Your task to perform on an android device: change notification settings in the gmail app Image 0: 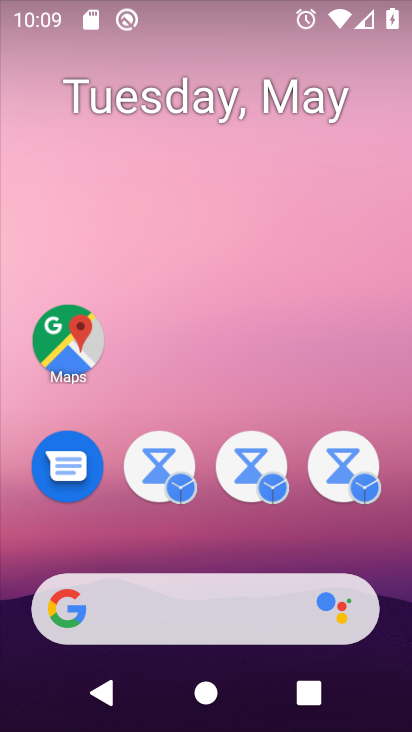
Step 0: drag from (346, 708) to (284, 389)
Your task to perform on an android device: change notification settings in the gmail app Image 1: 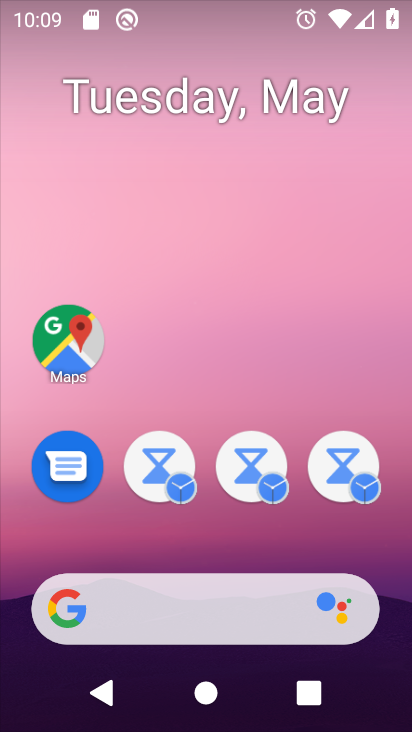
Step 1: drag from (362, 641) to (229, 106)
Your task to perform on an android device: change notification settings in the gmail app Image 2: 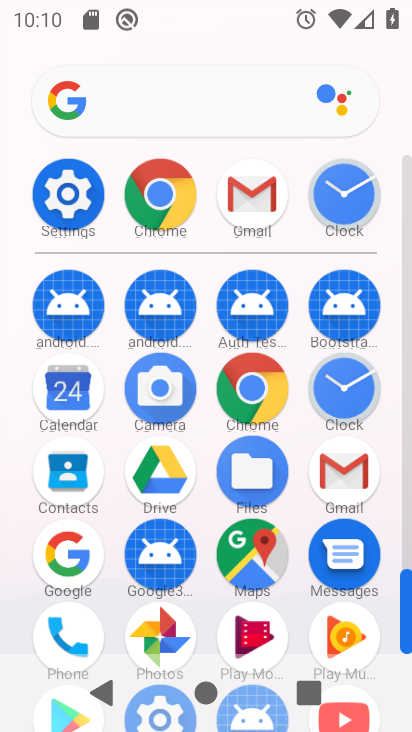
Step 2: click (336, 465)
Your task to perform on an android device: change notification settings in the gmail app Image 3: 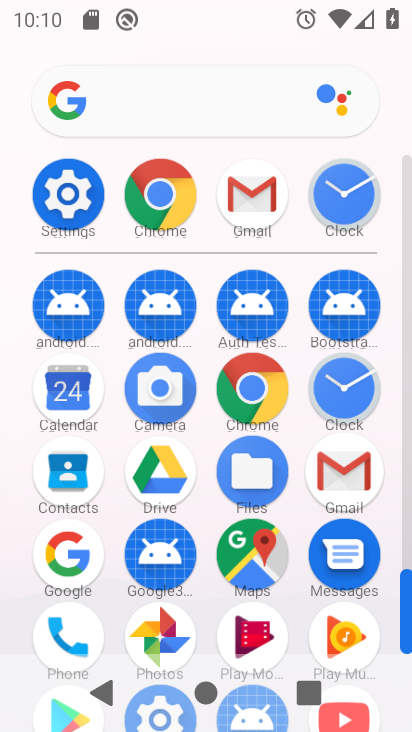
Step 3: click (335, 466)
Your task to perform on an android device: change notification settings in the gmail app Image 4: 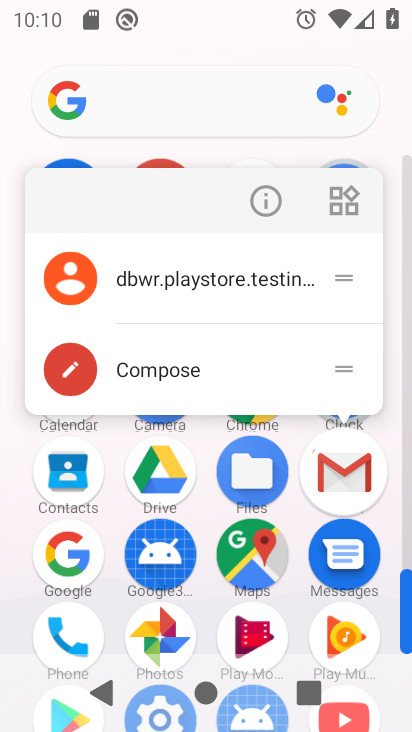
Step 4: click (335, 466)
Your task to perform on an android device: change notification settings in the gmail app Image 5: 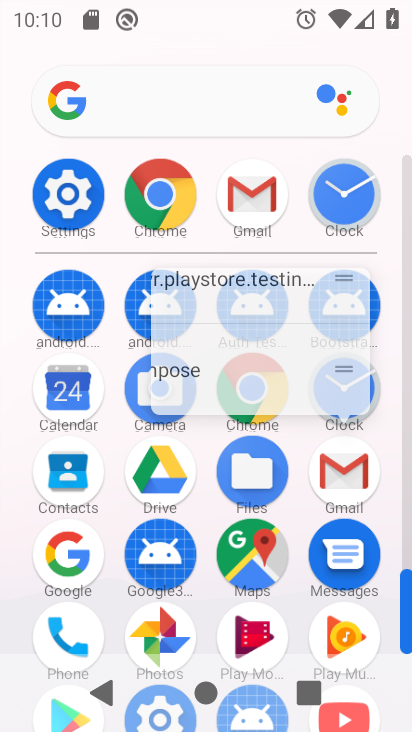
Step 5: click (335, 466)
Your task to perform on an android device: change notification settings in the gmail app Image 6: 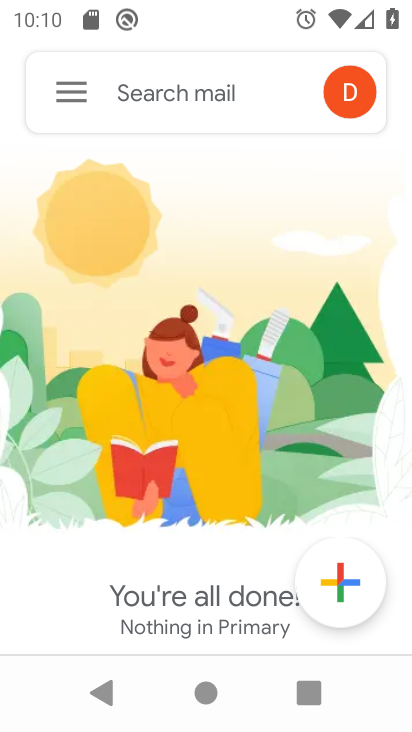
Step 6: press back button
Your task to perform on an android device: change notification settings in the gmail app Image 7: 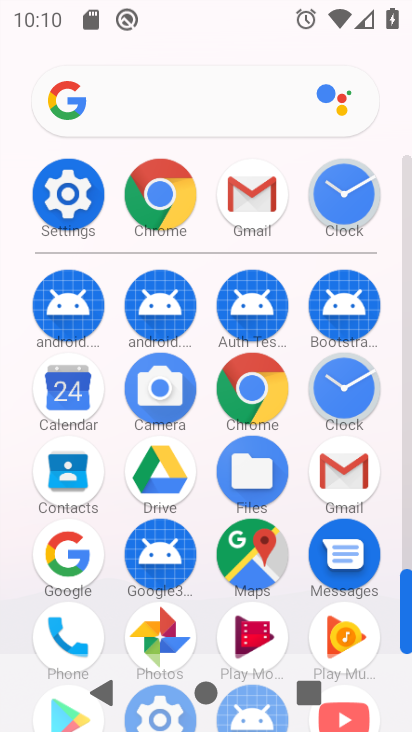
Step 7: click (342, 461)
Your task to perform on an android device: change notification settings in the gmail app Image 8: 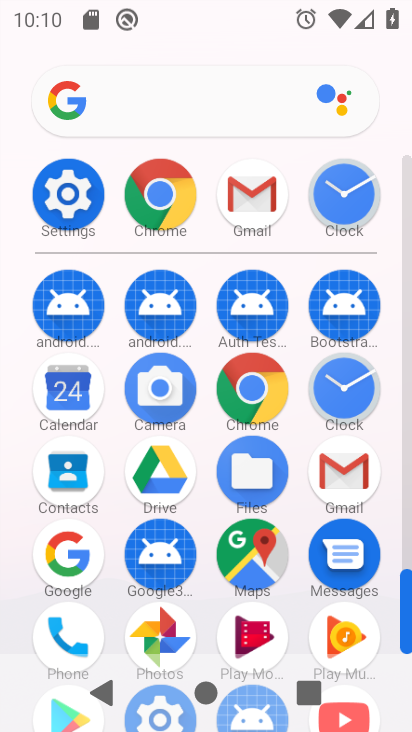
Step 8: click (344, 461)
Your task to perform on an android device: change notification settings in the gmail app Image 9: 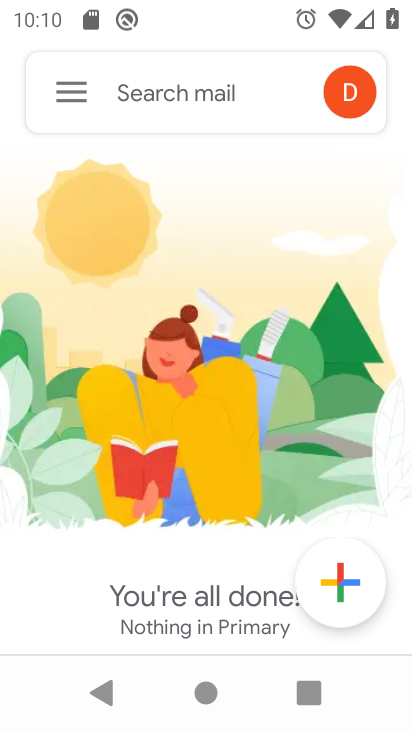
Step 9: drag from (59, 102) to (99, 404)
Your task to perform on an android device: change notification settings in the gmail app Image 10: 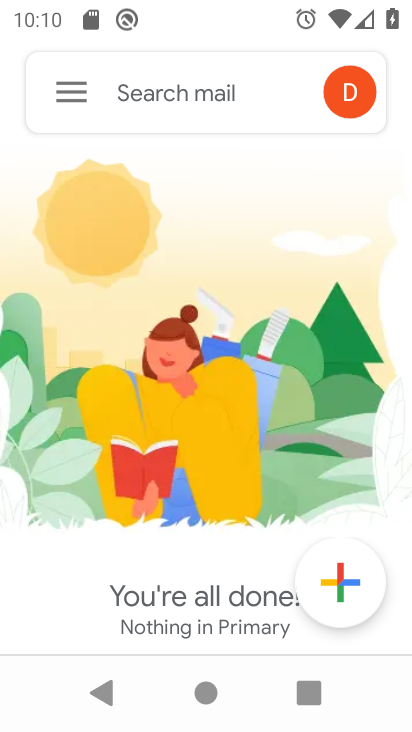
Step 10: drag from (60, 89) to (78, 216)
Your task to perform on an android device: change notification settings in the gmail app Image 11: 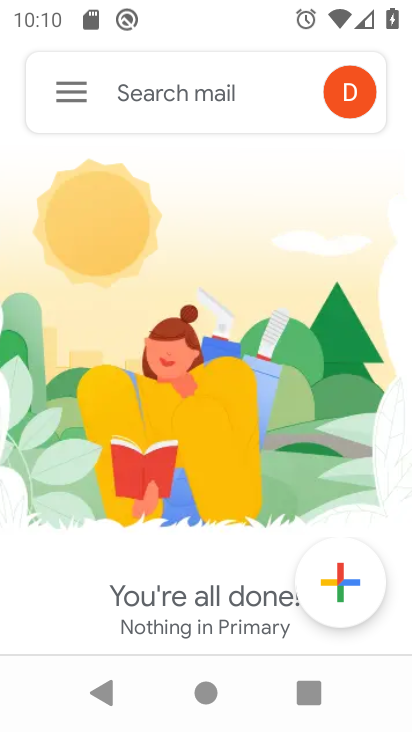
Step 11: click (71, 83)
Your task to perform on an android device: change notification settings in the gmail app Image 12: 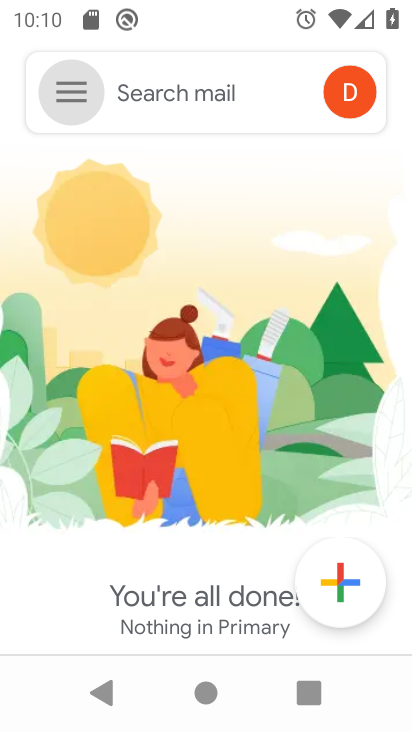
Step 12: click (74, 93)
Your task to perform on an android device: change notification settings in the gmail app Image 13: 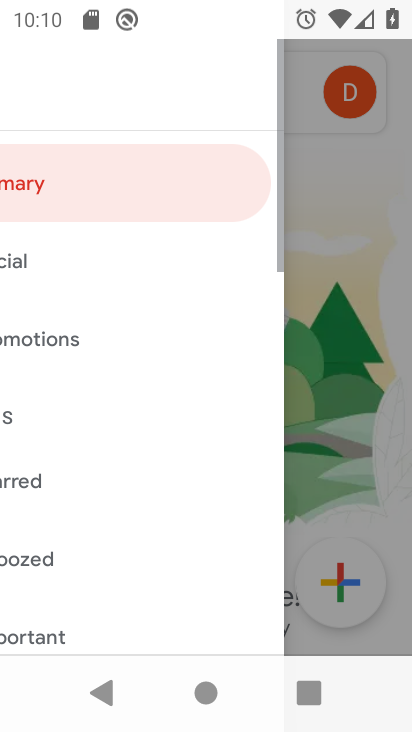
Step 13: click (75, 94)
Your task to perform on an android device: change notification settings in the gmail app Image 14: 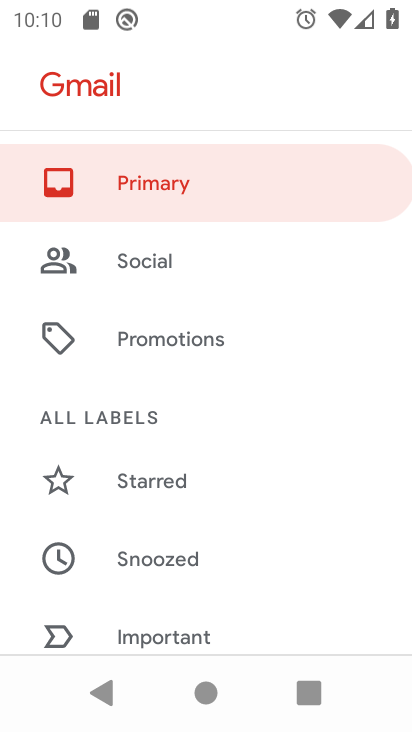
Step 14: drag from (185, 530) to (225, 302)
Your task to perform on an android device: change notification settings in the gmail app Image 15: 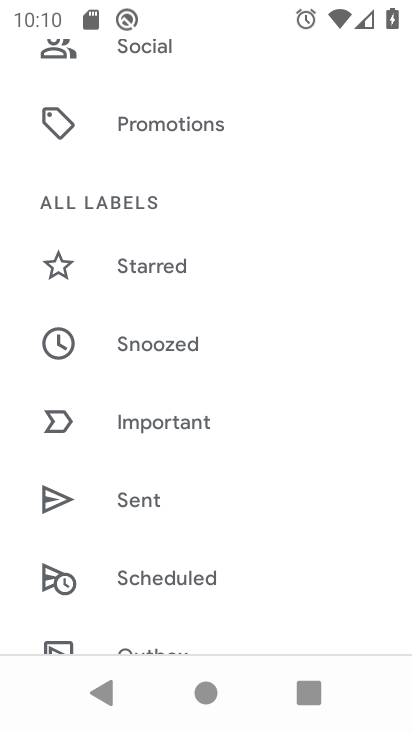
Step 15: drag from (227, 464) to (278, 139)
Your task to perform on an android device: change notification settings in the gmail app Image 16: 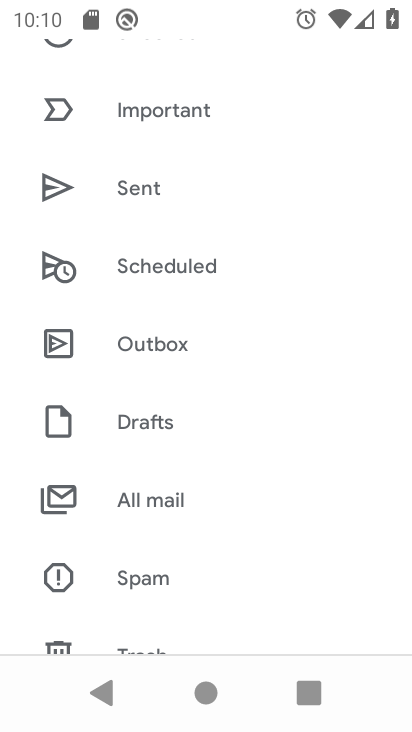
Step 16: drag from (246, 480) to (278, 157)
Your task to perform on an android device: change notification settings in the gmail app Image 17: 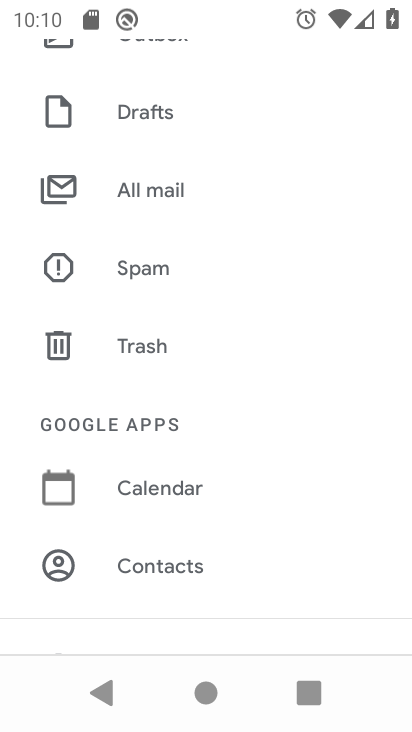
Step 17: drag from (230, 472) to (265, 137)
Your task to perform on an android device: change notification settings in the gmail app Image 18: 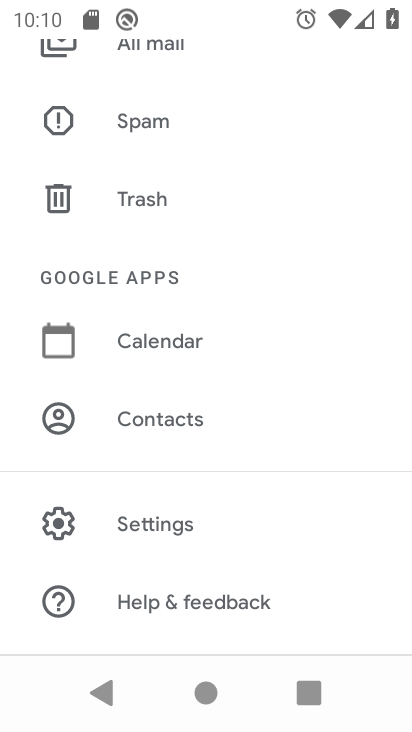
Step 18: click (143, 522)
Your task to perform on an android device: change notification settings in the gmail app Image 19: 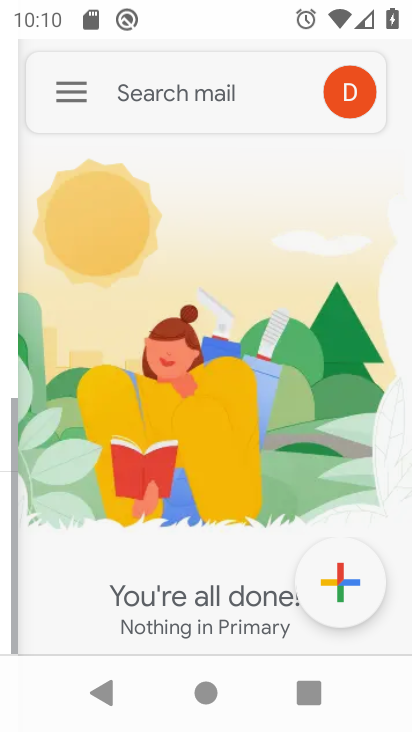
Step 19: click (143, 522)
Your task to perform on an android device: change notification settings in the gmail app Image 20: 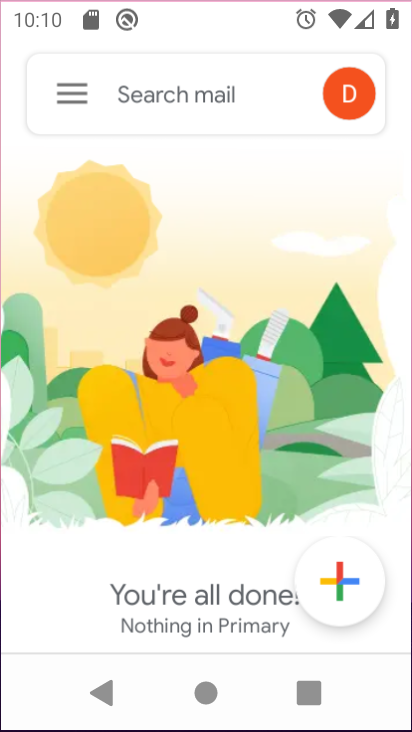
Step 20: click (143, 522)
Your task to perform on an android device: change notification settings in the gmail app Image 21: 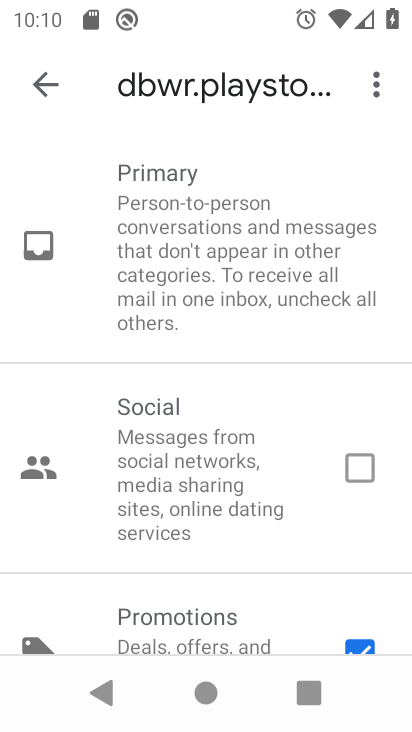
Step 21: drag from (184, 397) to (181, 121)
Your task to perform on an android device: change notification settings in the gmail app Image 22: 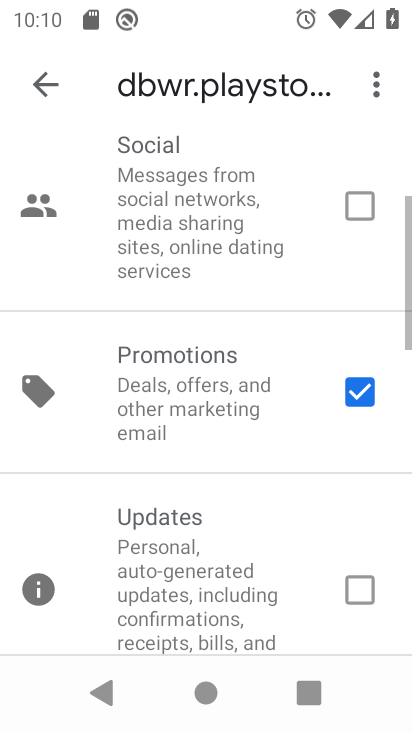
Step 22: drag from (214, 385) to (215, 156)
Your task to perform on an android device: change notification settings in the gmail app Image 23: 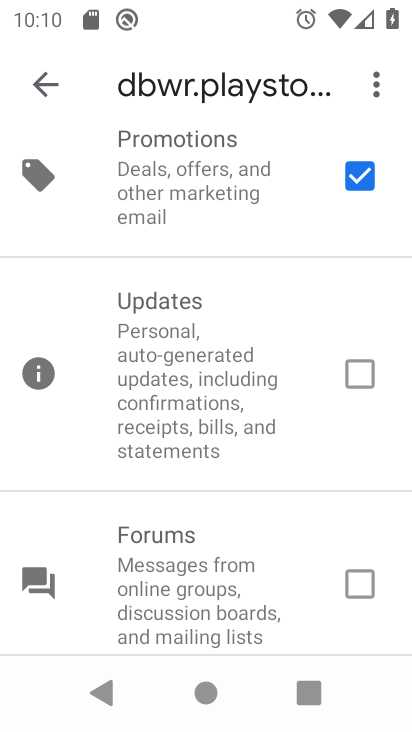
Step 23: drag from (187, 416) to (230, 169)
Your task to perform on an android device: change notification settings in the gmail app Image 24: 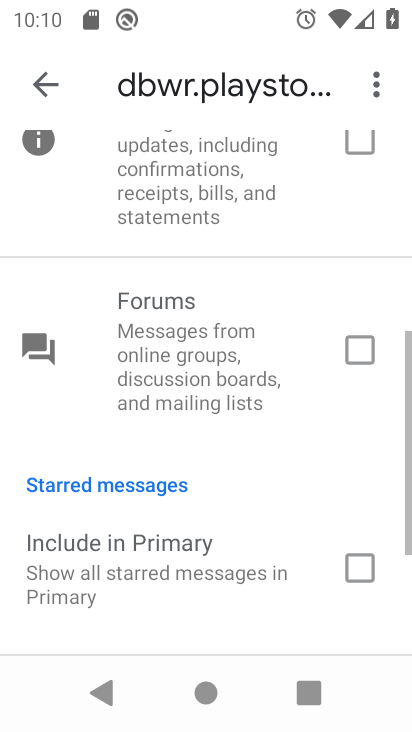
Step 24: drag from (237, 414) to (251, 78)
Your task to perform on an android device: change notification settings in the gmail app Image 25: 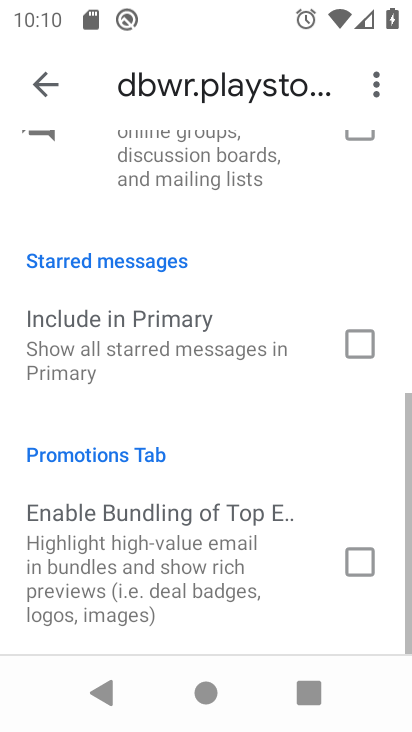
Step 25: drag from (128, 268) to (181, 531)
Your task to perform on an android device: change notification settings in the gmail app Image 26: 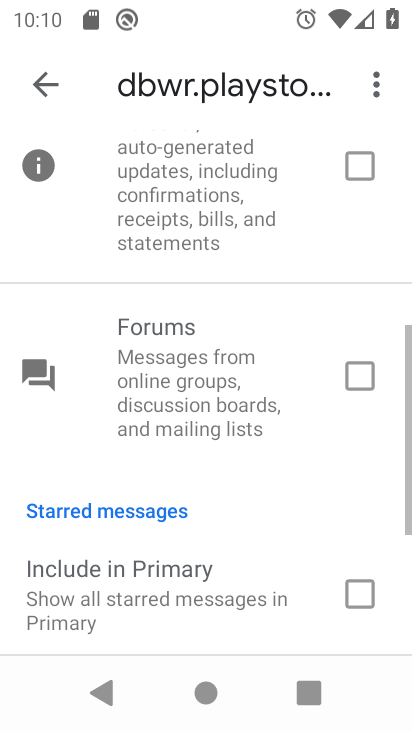
Step 26: drag from (129, 195) to (202, 484)
Your task to perform on an android device: change notification settings in the gmail app Image 27: 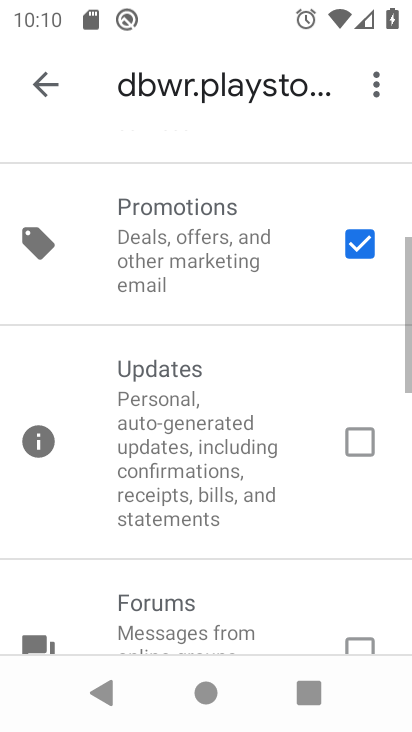
Step 27: drag from (177, 337) to (179, 609)
Your task to perform on an android device: change notification settings in the gmail app Image 28: 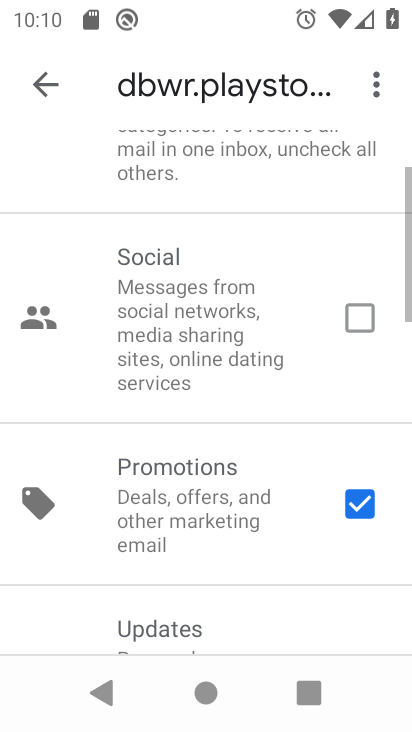
Step 28: drag from (130, 272) to (198, 517)
Your task to perform on an android device: change notification settings in the gmail app Image 29: 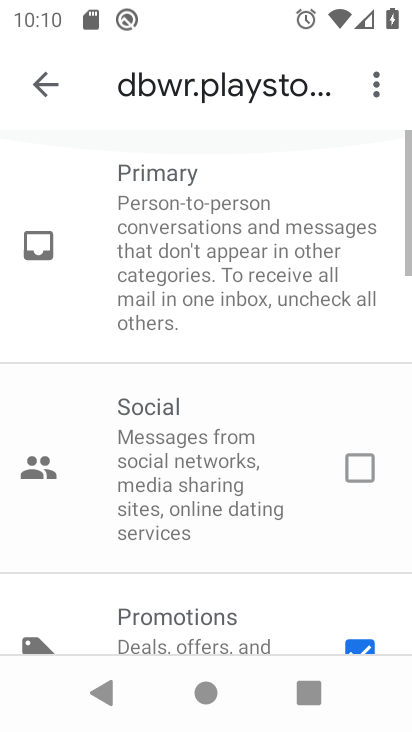
Step 29: drag from (153, 303) to (218, 566)
Your task to perform on an android device: change notification settings in the gmail app Image 30: 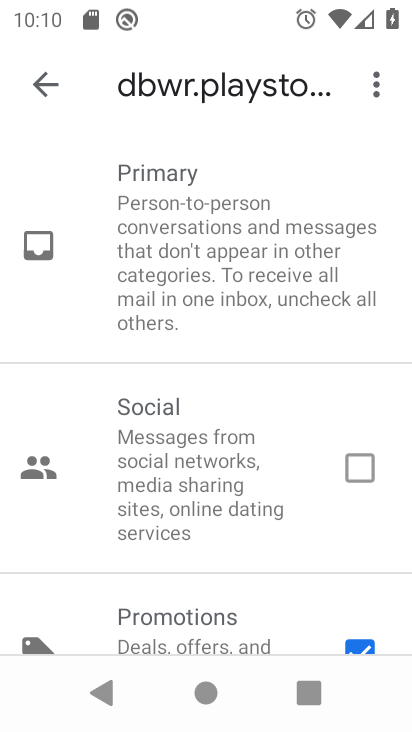
Step 30: click (26, 77)
Your task to perform on an android device: change notification settings in the gmail app Image 31: 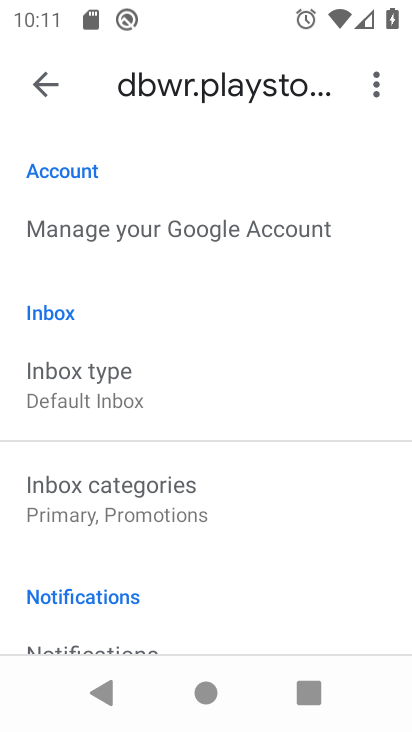
Step 31: drag from (106, 556) to (138, 202)
Your task to perform on an android device: change notification settings in the gmail app Image 32: 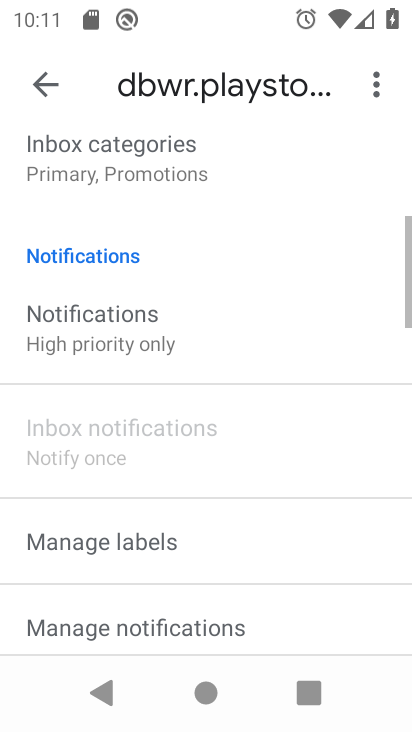
Step 32: drag from (155, 463) to (188, 190)
Your task to perform on an android device: change notification settings in the gmail app Image 33: 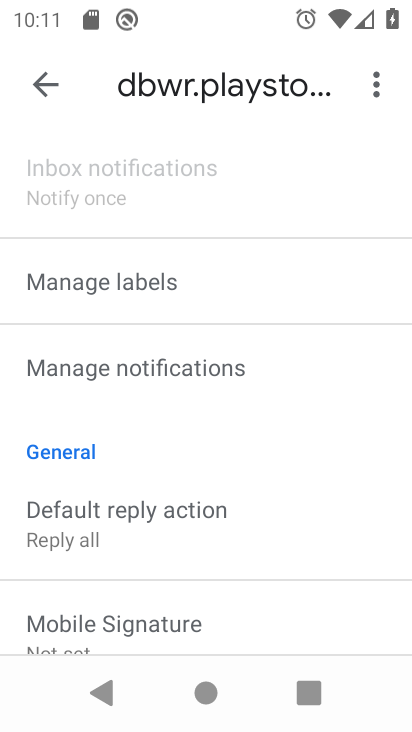
Step 33: drag from (107, 525) to (109, 179)
Your task to perform on an android device: change notification settings in the gmail app Image 34: 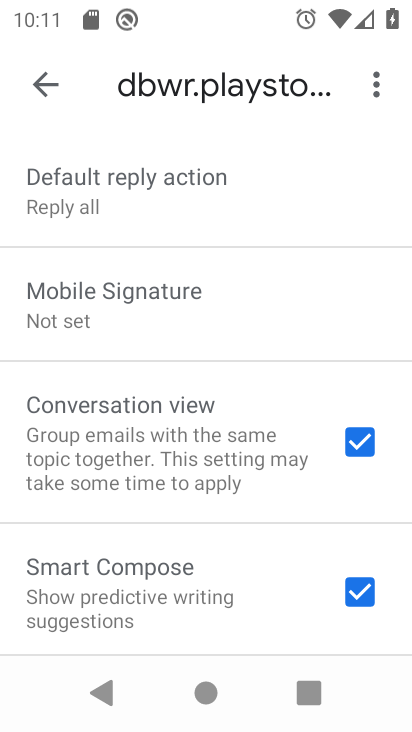
Step 34: drag from (94, 285) to (149, 635)
Your task to perform on an android device: change notification settings in the gmail app Image 35: 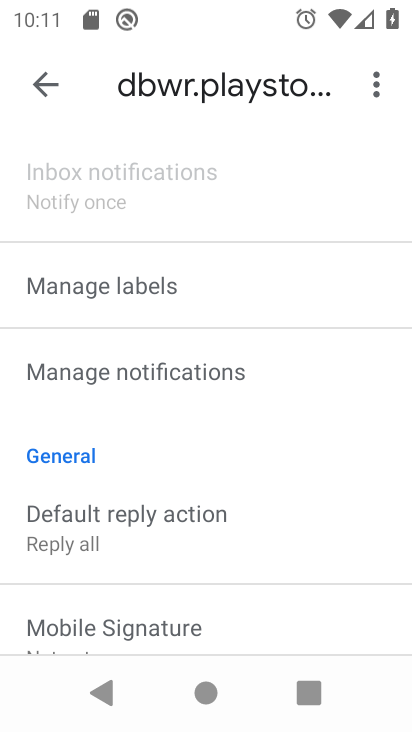
Step 35: drag from (113, 498) to (108, 146)
Your task to perform on an android device: change notification settings in the gmail app Image 36: 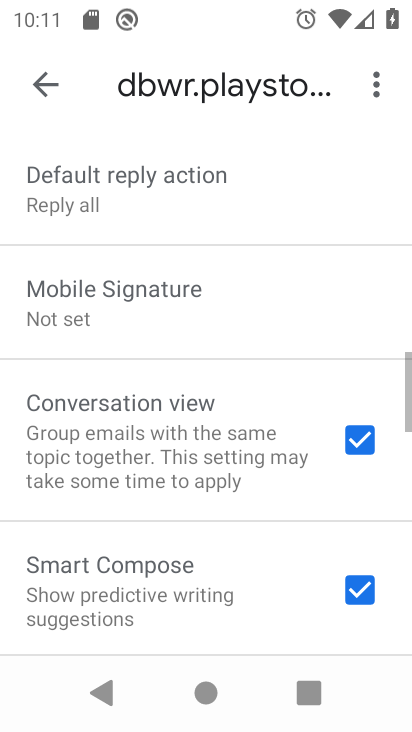
Step 36: drag from (126, 424) to (138, 163)
Your task to perform on an android device: change notification settings in the gmail app Image 37: 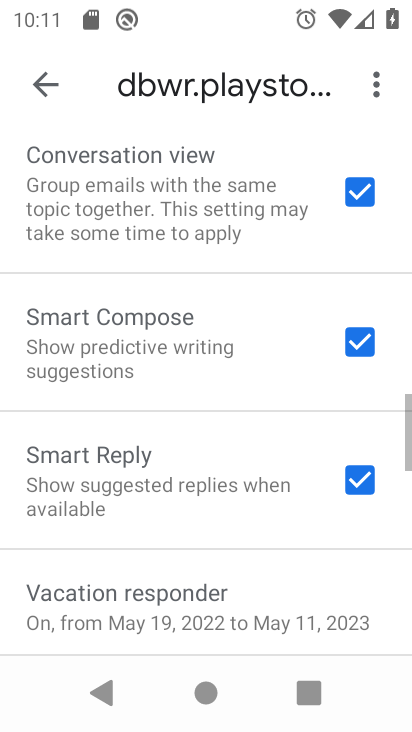
Step 37: drag from (111, 470) to (131, 242)
Your task to perform on an android device: change notification settings in the gmail app Image 38: 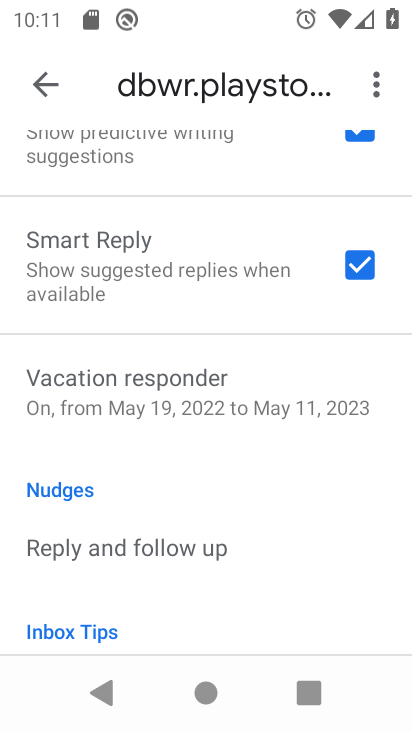
Step 38: drag from (80, 252) to (142, 516)
Your task to perform on an android device: change notification settings in the gmail app Image 39: 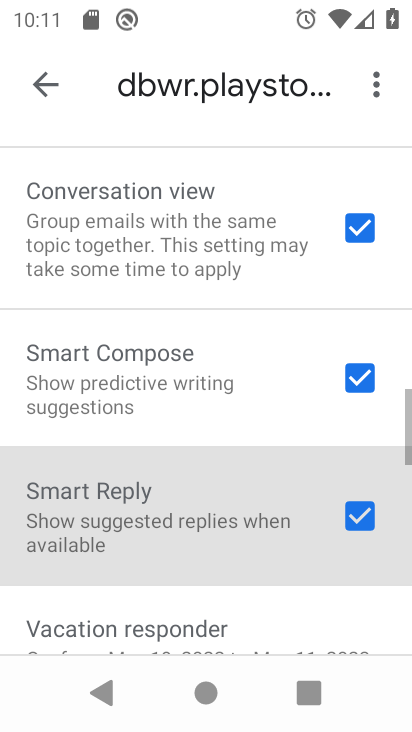
Step 39: drag from (145, 233) to (183, 540)
Your task to perform on an android device: change notification settings in the gmail app Image 40: 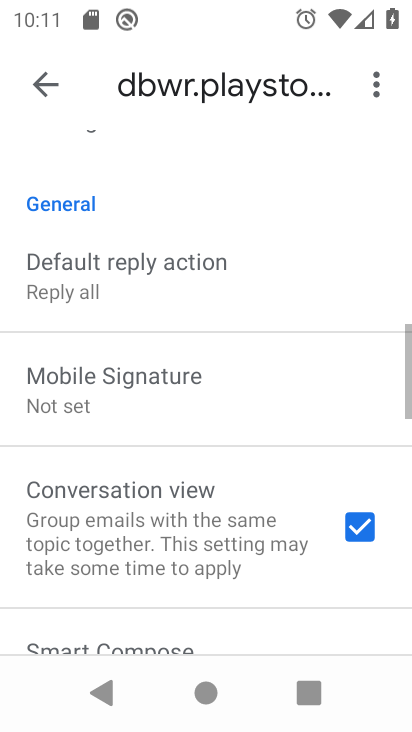
Step 40: drag from (123, 253) to (220, 600)
Your task to perform on an android device: change notification settings in the gmail app Image 41: 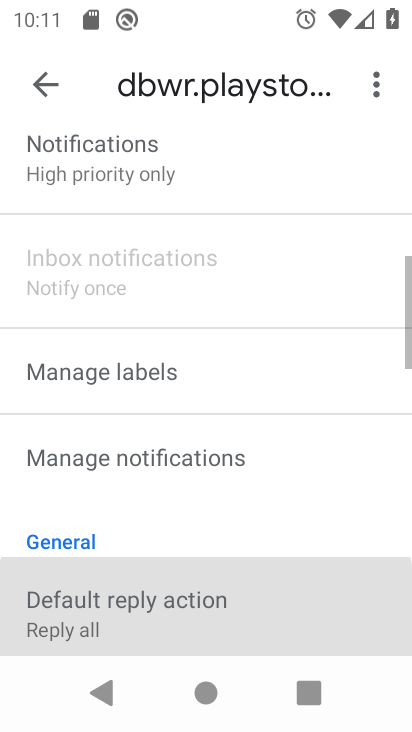
Step 41: drag from (137, 298) to (181, 558)
Your task to perform on an android device: change notification settings in the gmail app Image 42: 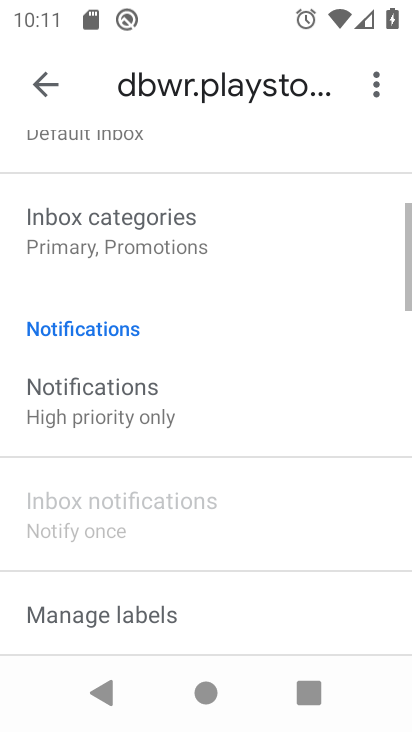
Step 42: drag from (106, 268) to (176, 530)
Your task to perform on an android device: change notification settings in the gmail app Image 43: 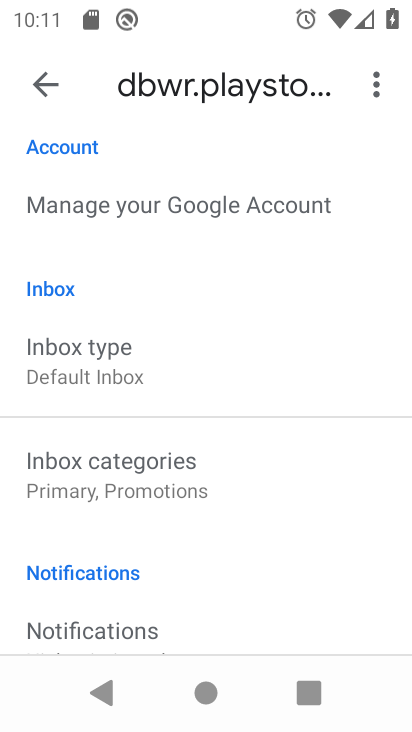
Step 43: drag from (110, 599) to (110, 288)
Your task to perform on an android device: change notification settings in the gmail app Image 44: 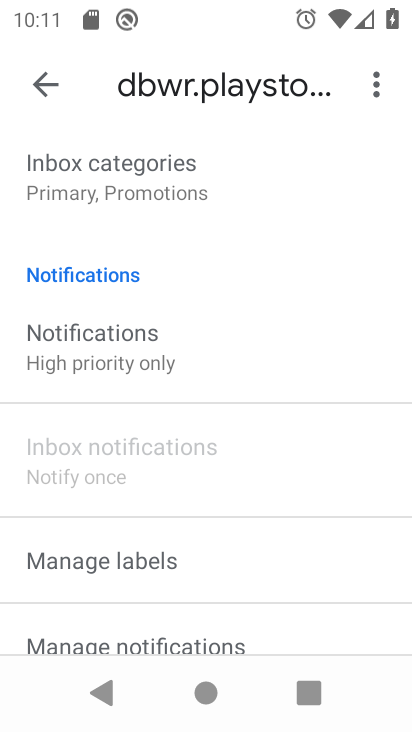
Step 44: click (59, 346)
Your task to perform on an android device: change notification settings in the gmail app Image 45: 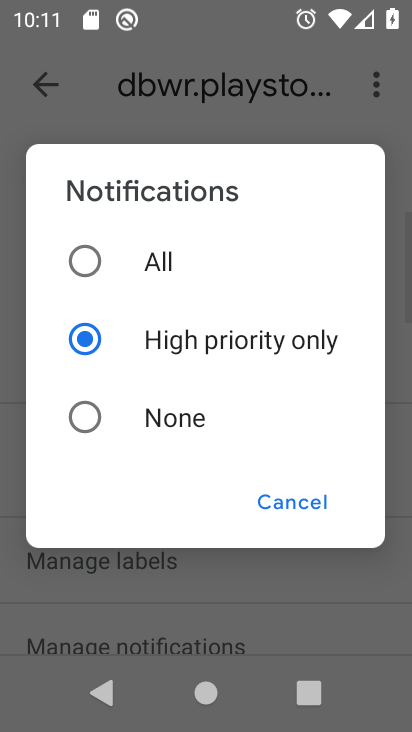
Step 45: click (83, 262)
Your task to perform on an android device: change notification settings in the gmail app Image 46: 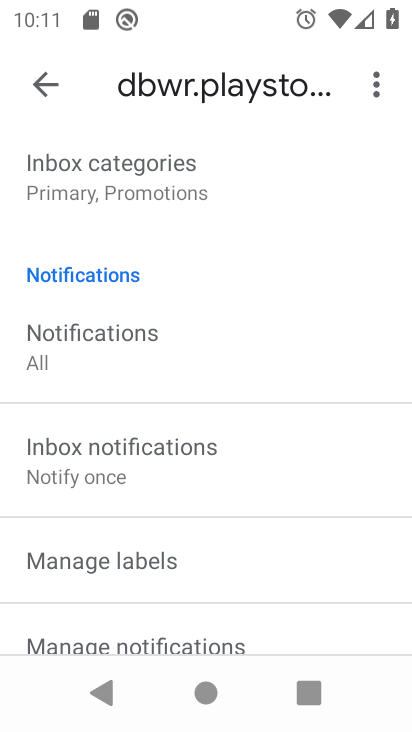
Step 46: task complete